Your task to perform on an android device: Search for sushi restaurants on Maps Image 0: 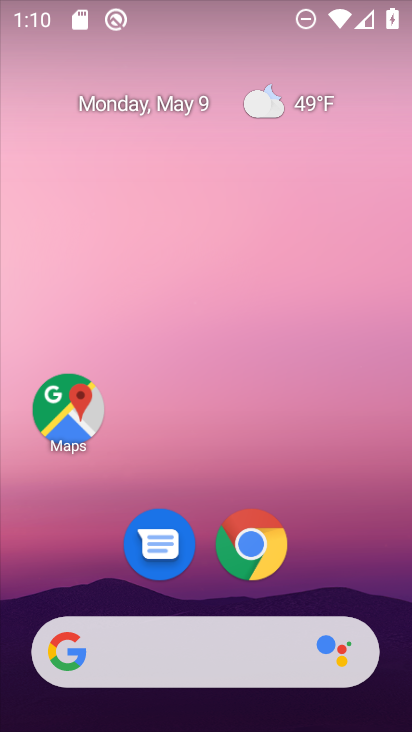
Step 0: drag from (356, 549) to (326, 132)
Your task to perform on an android device: Search for sushi restaurants on Maps Image 1: 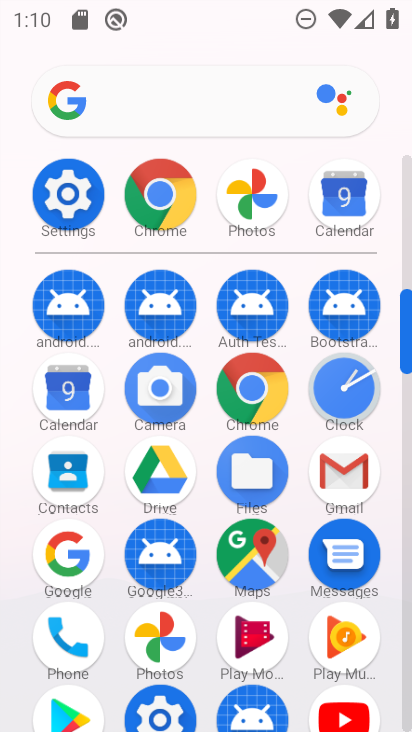
Step 1: click (249, 558)
Your task to perform on an android device: Search for sushi restaurants on Maps Image 2: 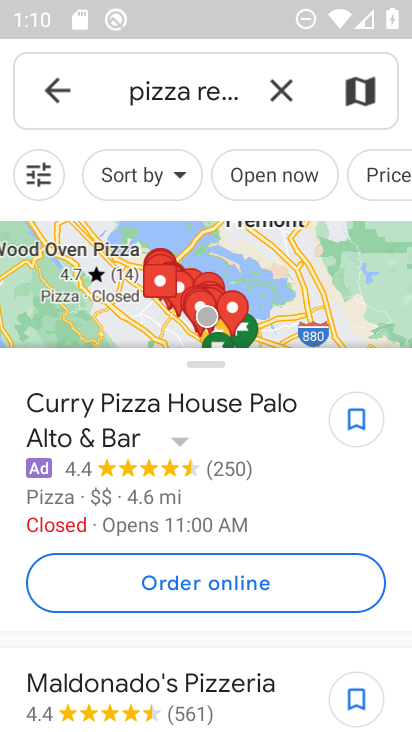
Step 2: click (293, 98)
Your task to perform on an android device: Search for sushi restaurants on Maps Image 3: 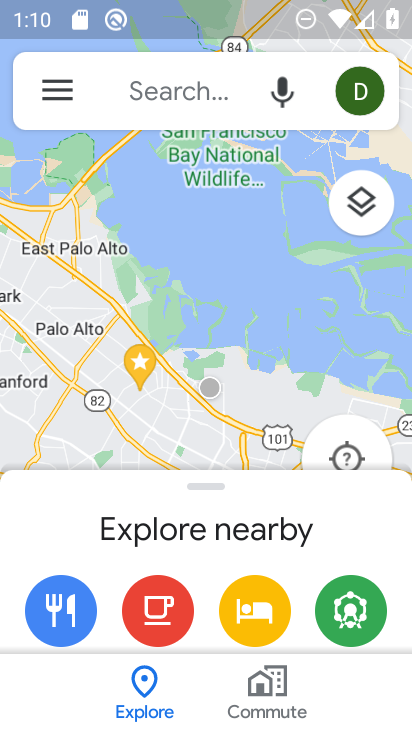
Step 3: click (198, 90)
Your task to perform on an android device: Search for sushi restaurants on Maps Image 4: 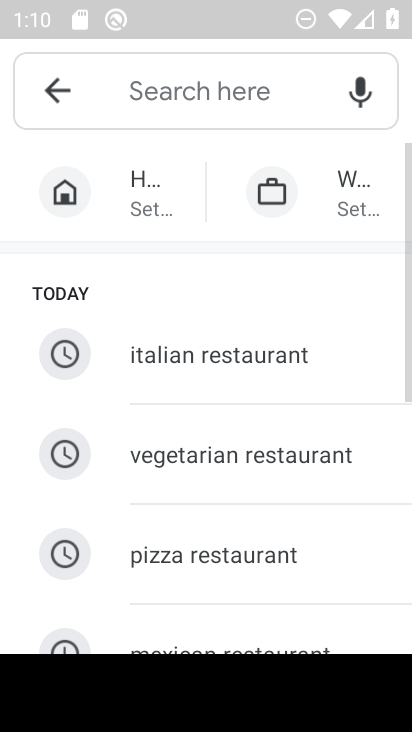
Step 4: drag from (257, 579) to (220, 258)
Your task to perform on an android device: Search for sushi restaurants on Maps Image 5: 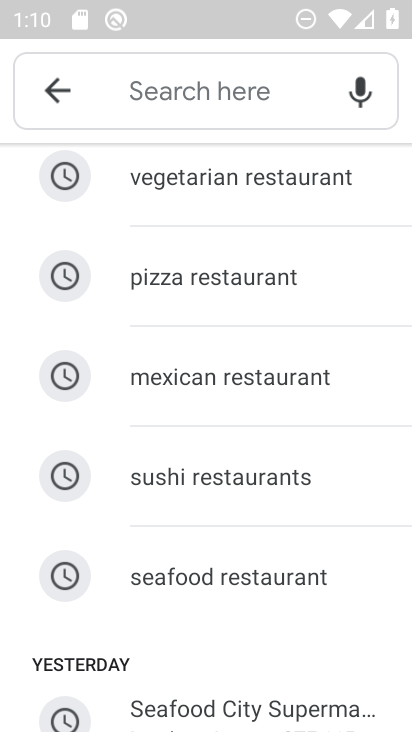
Step 5: click (198, 484)
Your task to perform on an android device: Search for sushi restaurants on Maps Image 6: 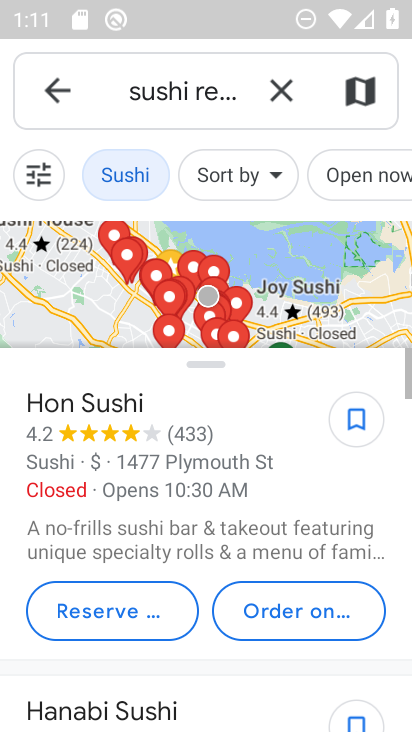
Step 6: task complete